Your task to perform on an android device: toggle sleep mode Image 0: 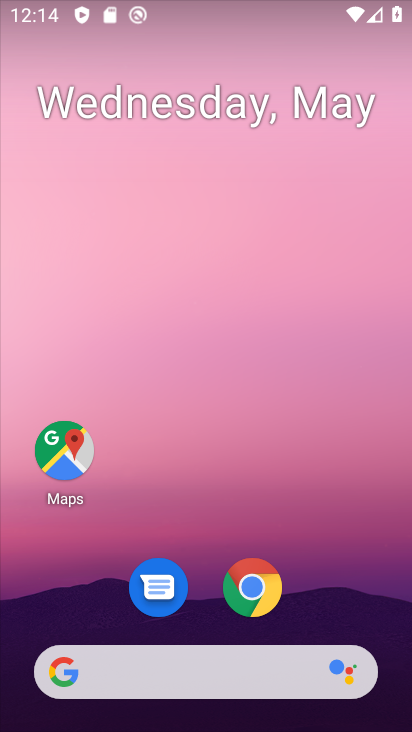
Step 0: drag from (47, 659) to (111, 390)
Your task to perform on an android device: toggle sleep mode Image 1: 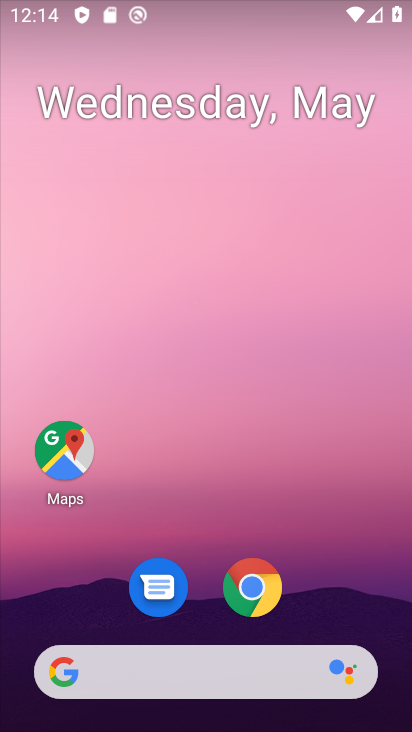
Step 1: drag from (54, 661) to (116, 205)
Your task to perform on an android device: toggle sleep mode Image 2: 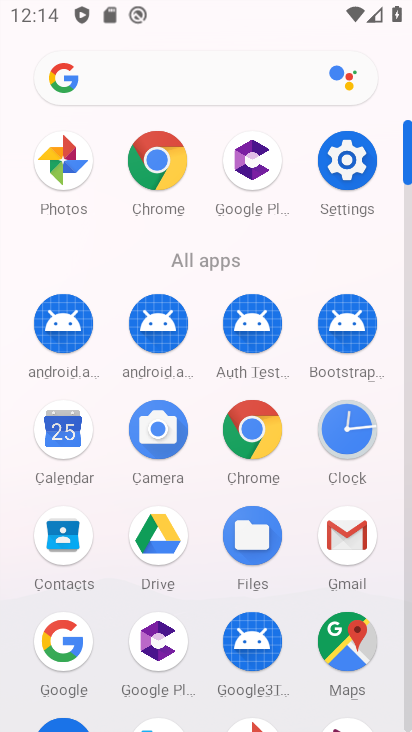
Step 2: drag from (147, 505) to (192, 300)
Your task to perform on an android device: toggle sleep mode Image 3: 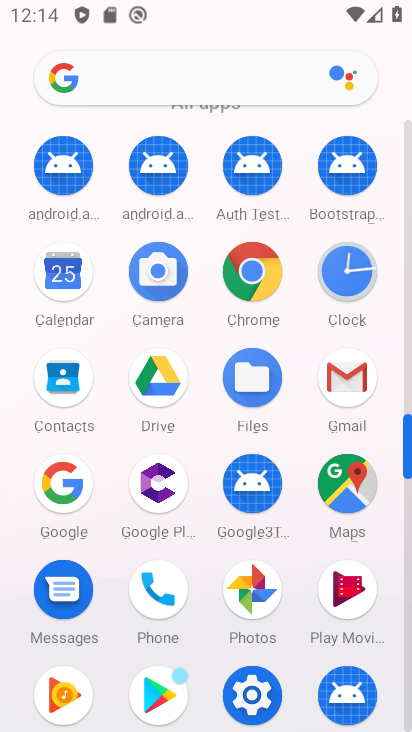
Step 3: click (246, 698)
Your task to perform on an android device: toggle sleep mode Image 4: 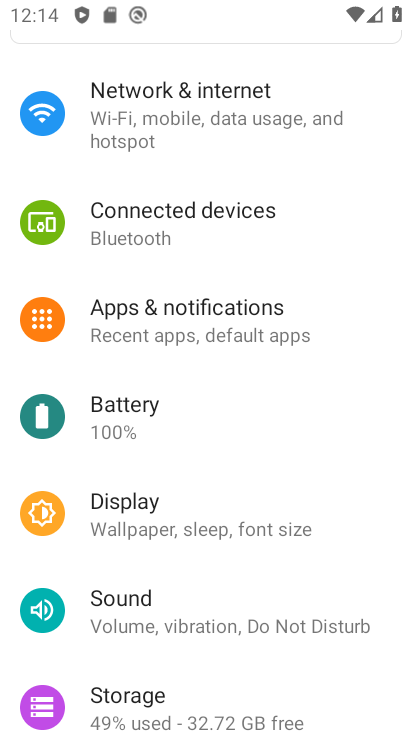
Step 4: click (144, 500)
Your task to perform on an android device: toggle sleep mode Image 5: 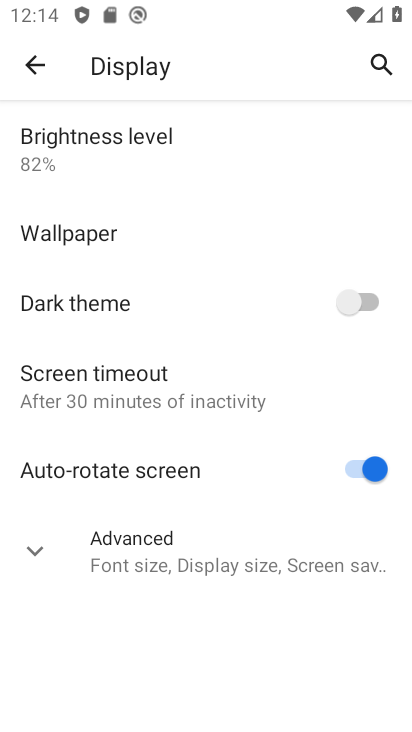
Step 5: click (199, 550)
Your task to perform on an android device: toggle sleep mode Image 6: 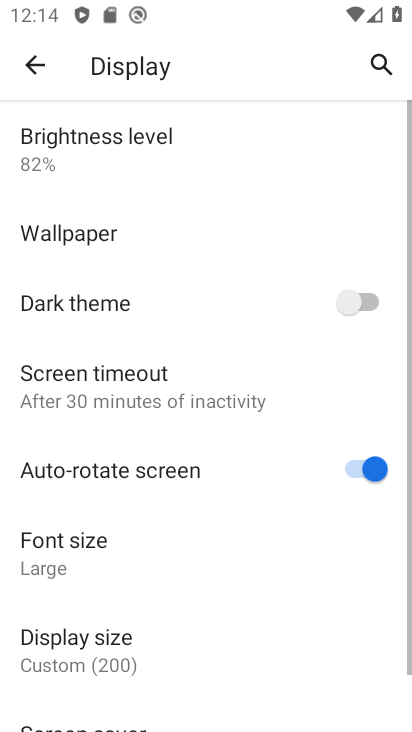
Step 6: task complete